Your task to perform on an android device: star an email in the gmail app Image 0: 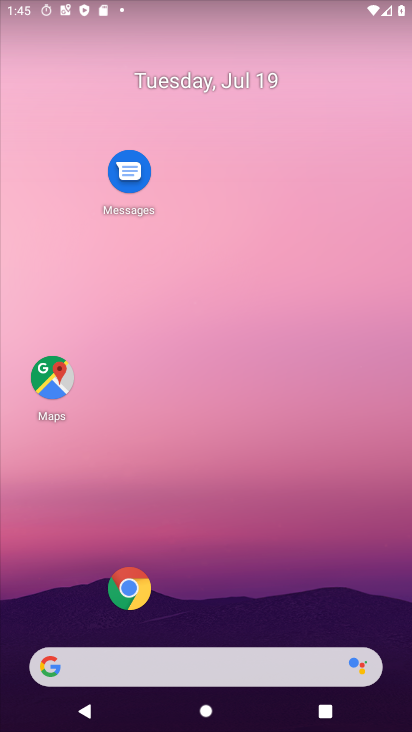
Step 0: drag from (266, 175) to (318, 87)
Your task to perform on an android device: star an email in the gmail app Image 1: 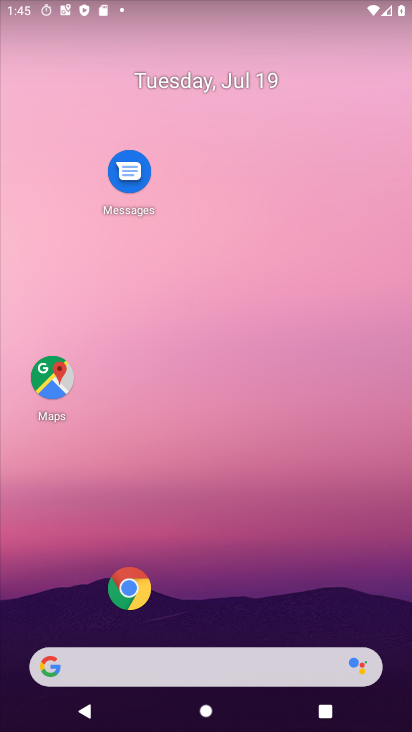
Step 1: drag from (45, 621) to (348, 26)
Your task to perform on an android device: star an email in the gmail app Image 2: 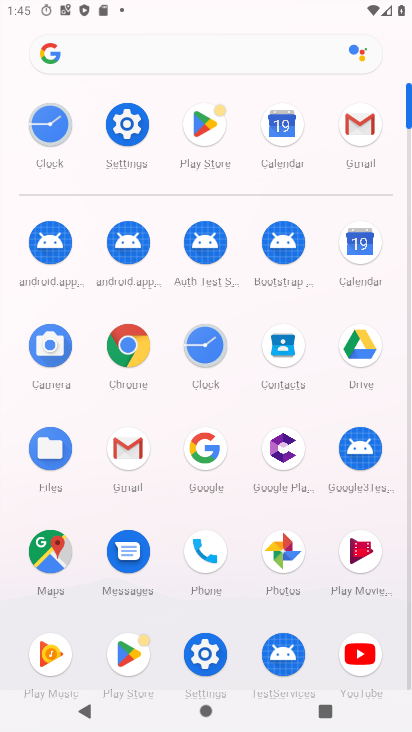
Step 2: click (116, 449)
Your task to perform on an android device: star an email in the gmail app Image 3: 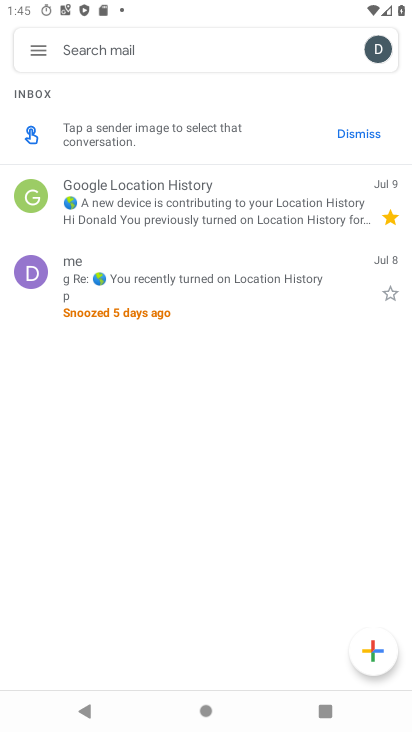
Step 3: click (32, 50)
Your task to perform on an android device: star an email in the gmail app Image 4: 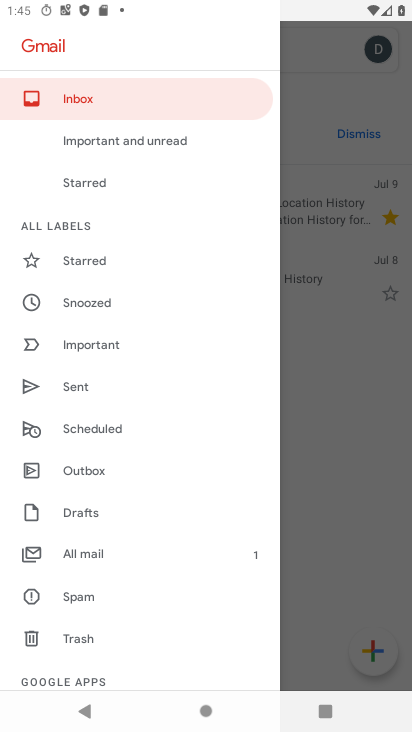
Step 4: click (78, 260)
Your task to perform on an android device: star an email in the gmail app Image 5: 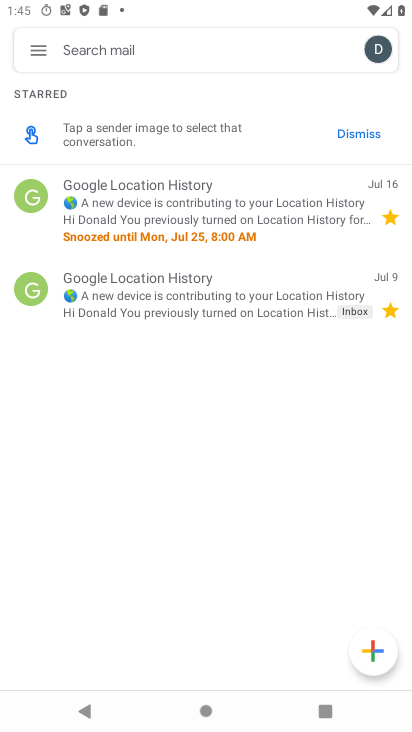
Step 5: task complete